Your task to perform on an android device: open app "Google Find My Device" (install if not already installed) Image 0: 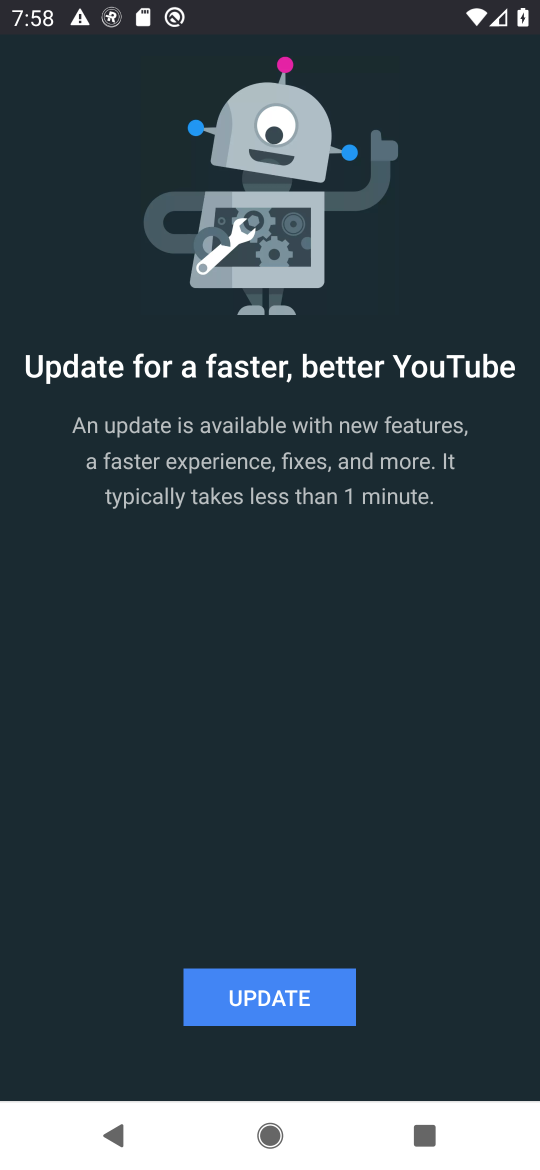
Step 0: press home button
Your task to perform on an android device: open app "Google Find My Device" (install if not already installed) Image 1: 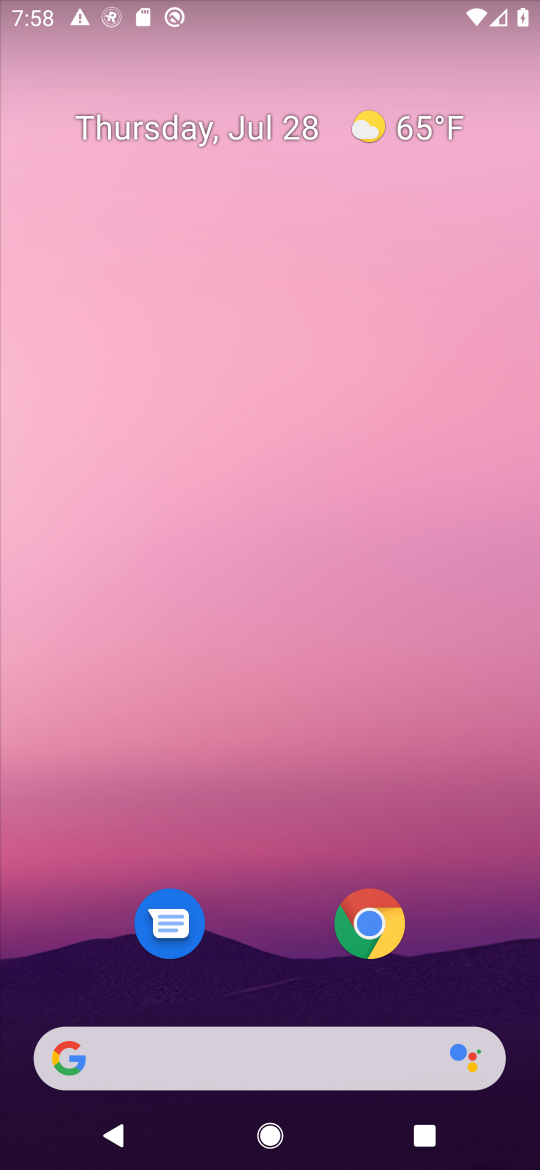
Step 1: drag from (470, 898) to (431, 259)
Your task to perform on an android device: open app "Google Find My Device" (install if not already installed) Image 2: 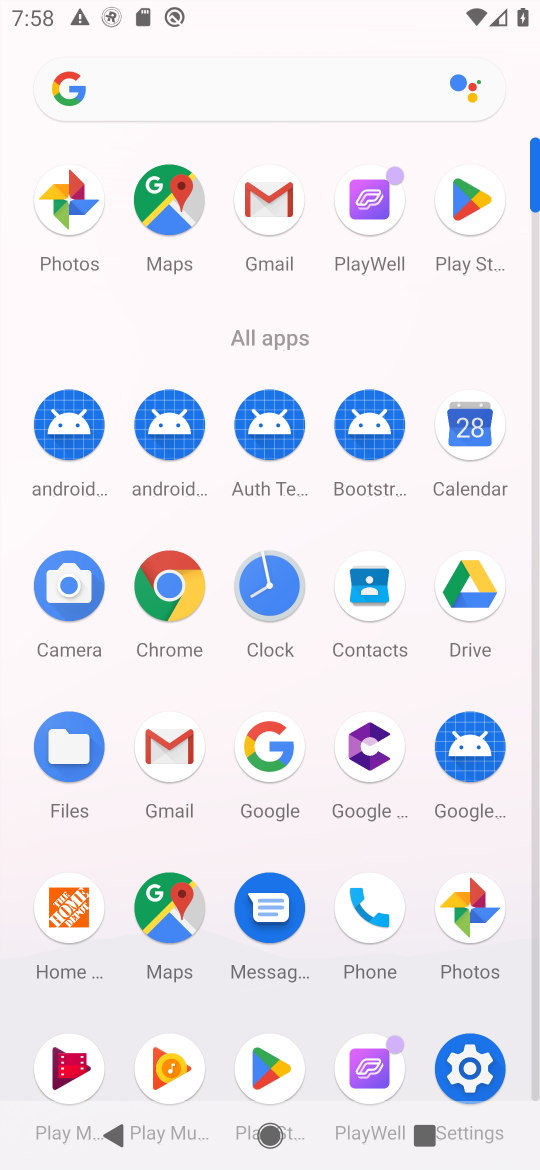
Step 2: drag from (319, 842) to (371, 369)
Your task to perform on an android device: open app "Google Find My Device" (install if not already installed) Image 3: 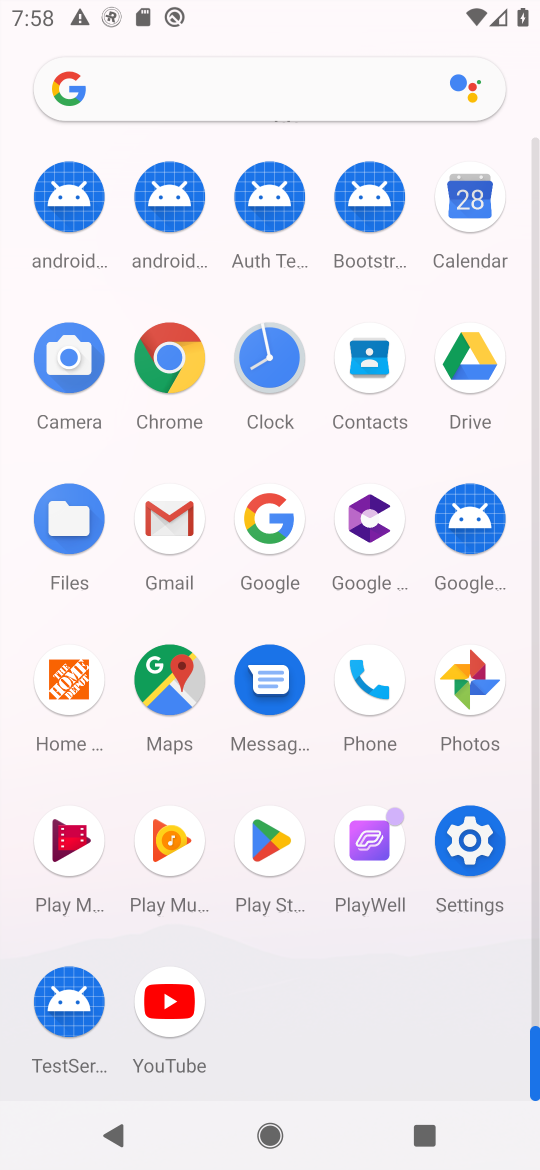
Step 3: click (257, 830)
Your task to perform on an android device: open app "Google Find My Device" (install if not already installed) Image 4: 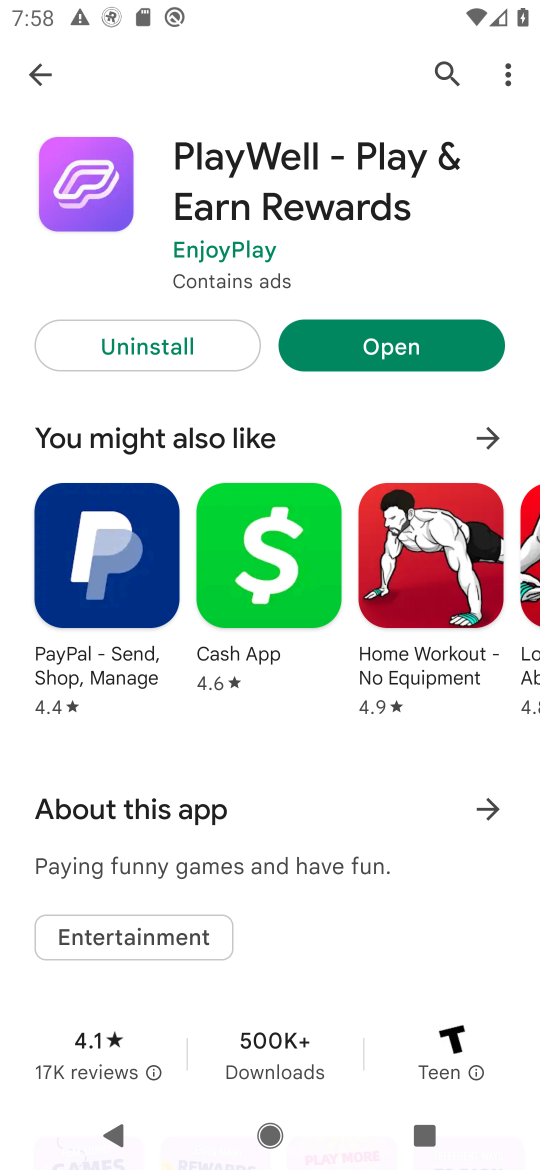
Step 4: click (445, 66)
Your task to perform on an android device: open app "Google Find My Device" (install if not already installed) Image 5: 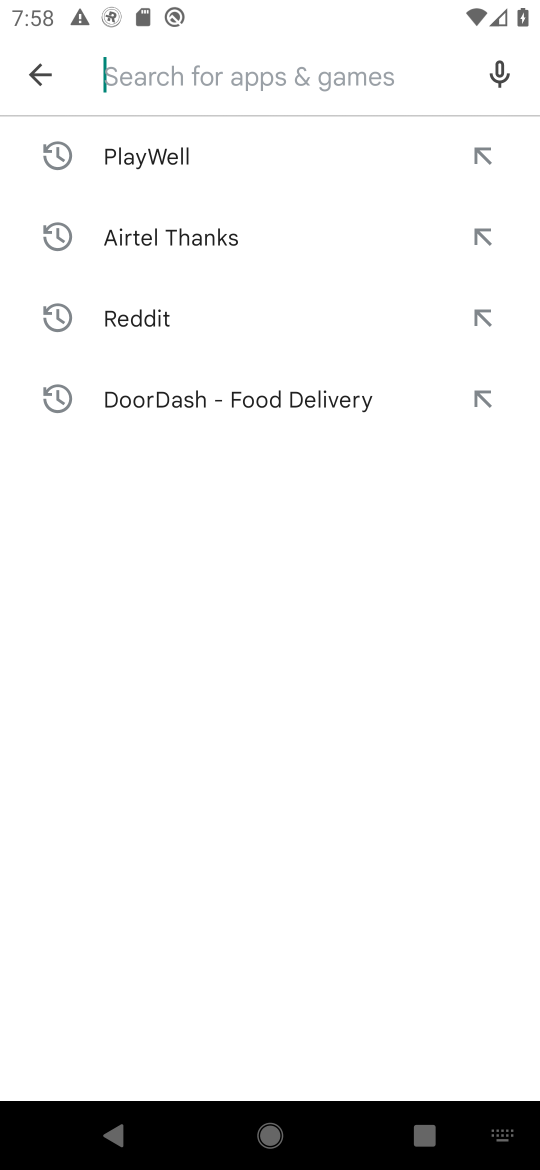
Step 5: type "Google Find My Device"
Your task to perform on an android device: open app "Google Find My Device" (install if not already installed) Image 6: 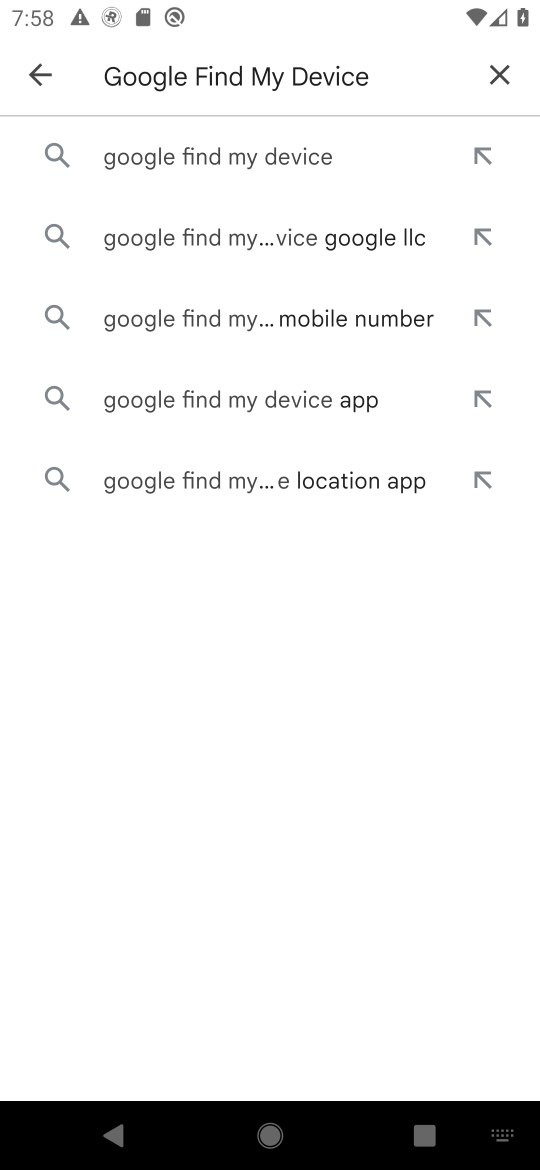
Step 6: press enter
Your task to perform on an android device: open app "Google Find My Device" (install if not already installed) Image 7: 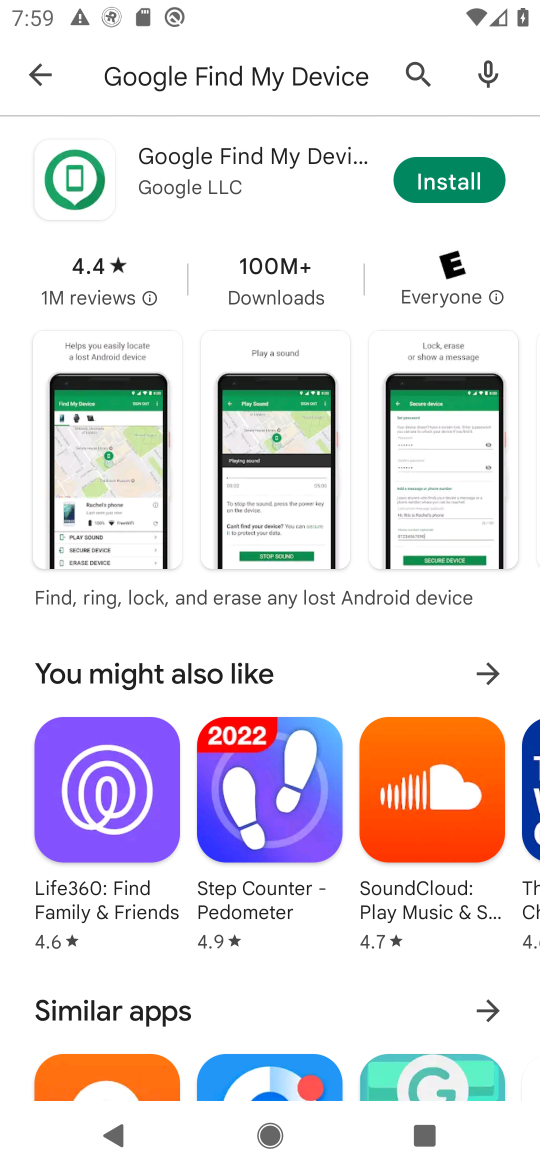
Step 7: click (482, 190)
Your task to perform on an android device: open app "Google Find My Device" (install if not already installed) Image 8: 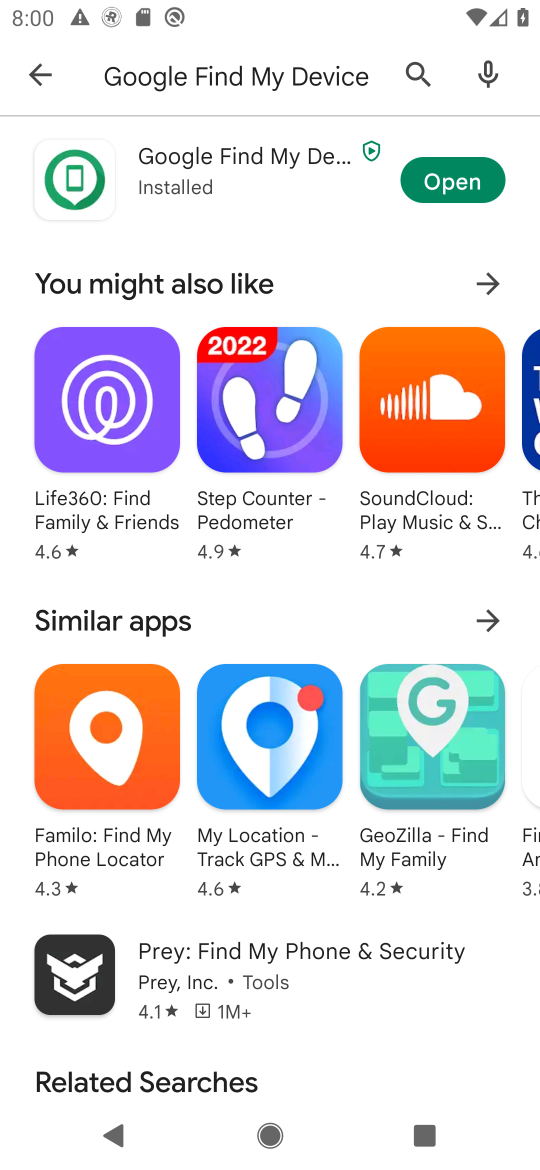
Step 8: click (447, 181)
Your task to perform on an android device: open app "Google Find My Device" (install if not already installed) Image 9: 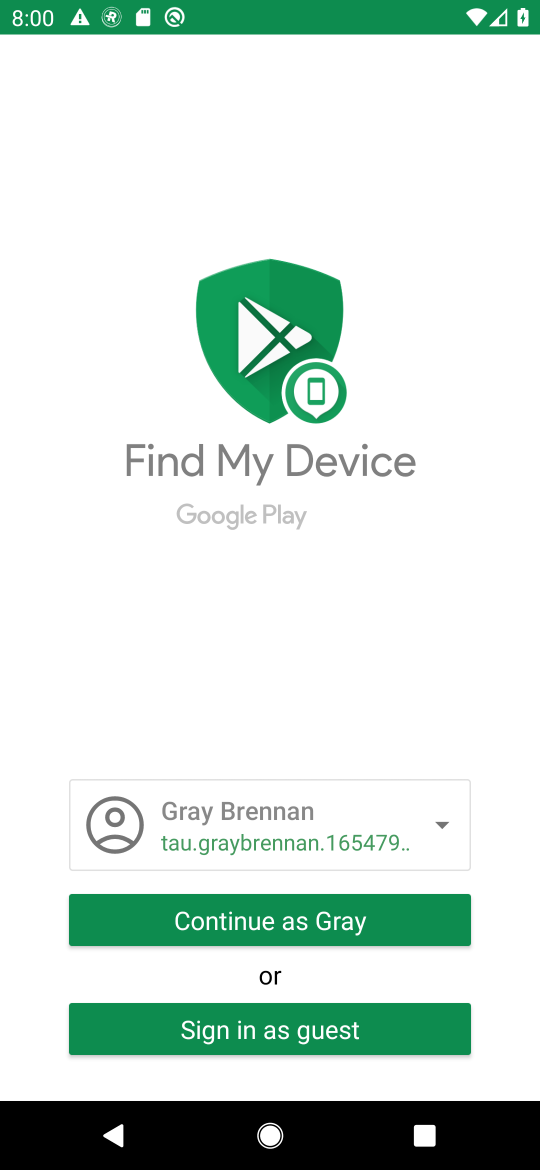
Step 9: click (375, 916)
Your task to perform on an android device: open app "Google Find My Device" (install if not already installed) Image 10: 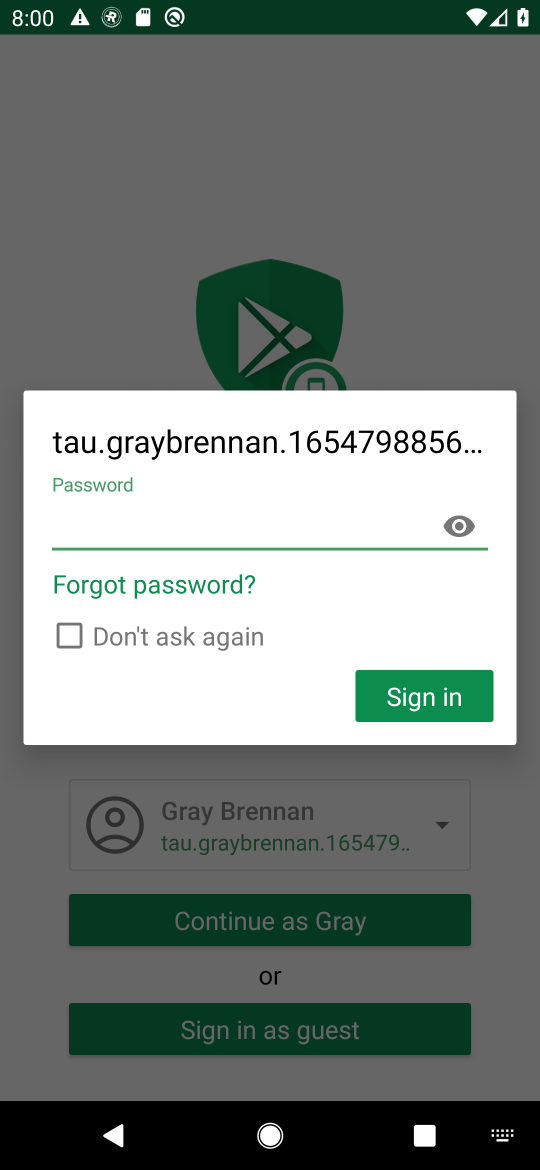
Step 10: click (269, 864)
Your task to perform on an android device: open app "Google Find My Device" (install if not already installed) Image 11: 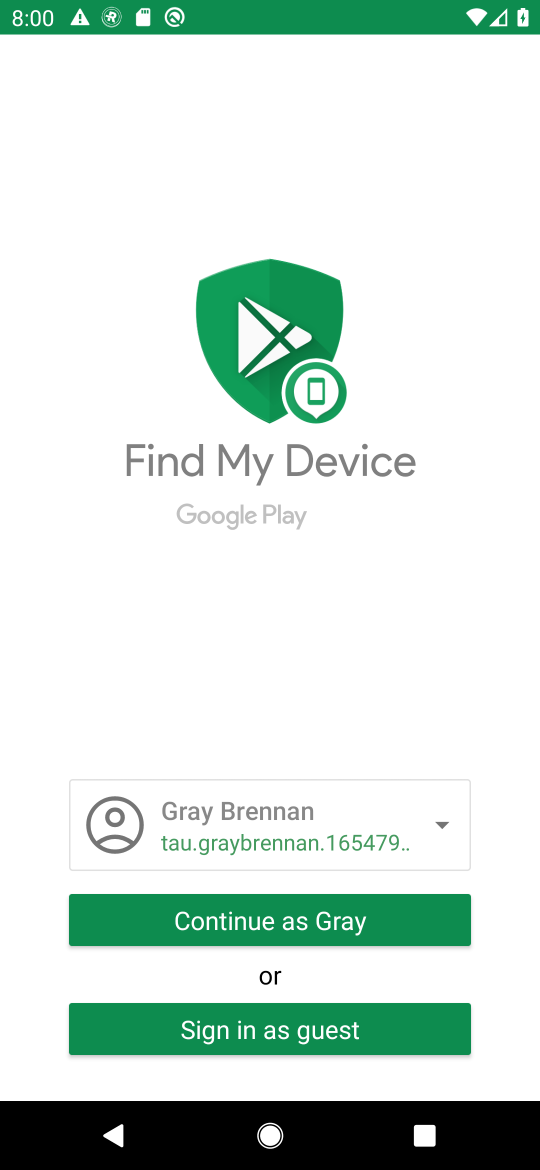
Step 11: task complete